Your task to perform on an android device: Turn off the flashlight Image 0: 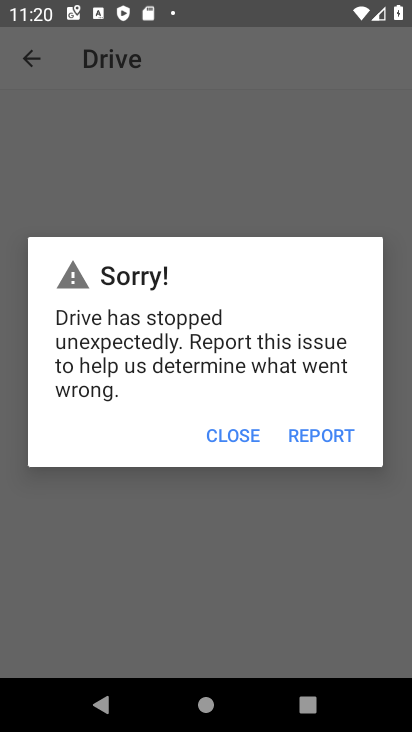
Step 0: press home button
Your task to perform on an android device: Turn off the flashlight Image 1: 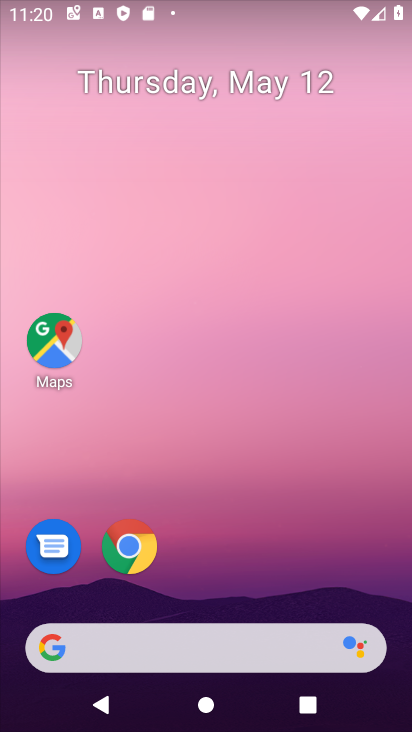
Step 1: drag from (238, 662) to (192, 212)
Your task to perform on an android device: Turn off the flashlight Image 2: 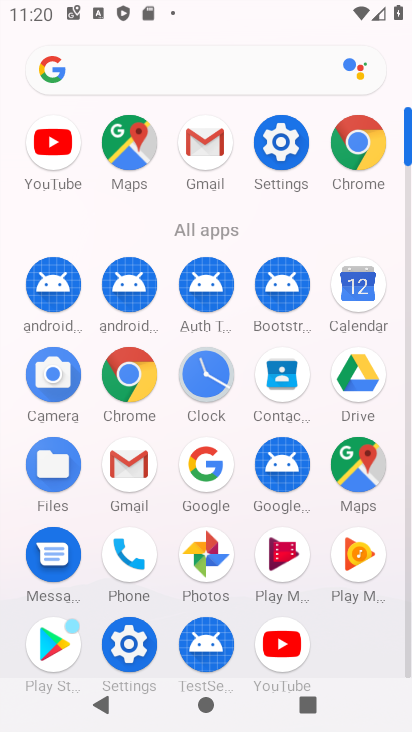
Step 2: click (285, 150)
Your task to perform on an android device: Turn off the flashlight Image 3: 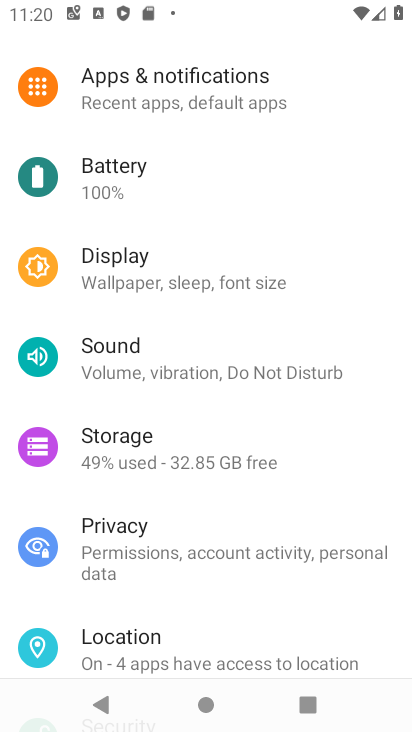
Step 3: drag from (74, 128) to (126, 345)
Your task to perform on an android device: Turn off the flashlight Image 4: 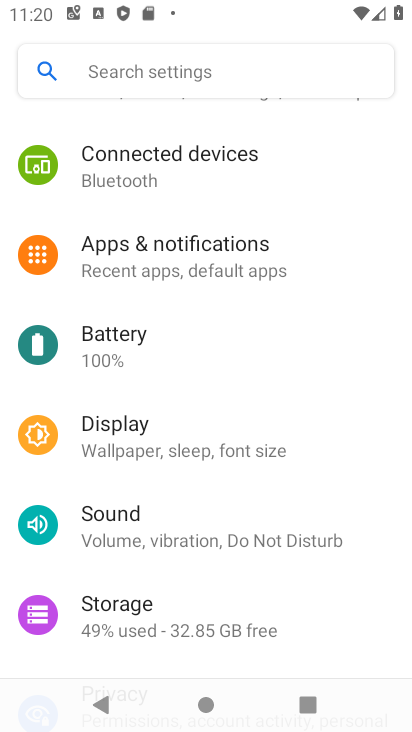
Step 4: click (134, 84)
Your task to perform on an android device: Turn off the flashlight Image 5: 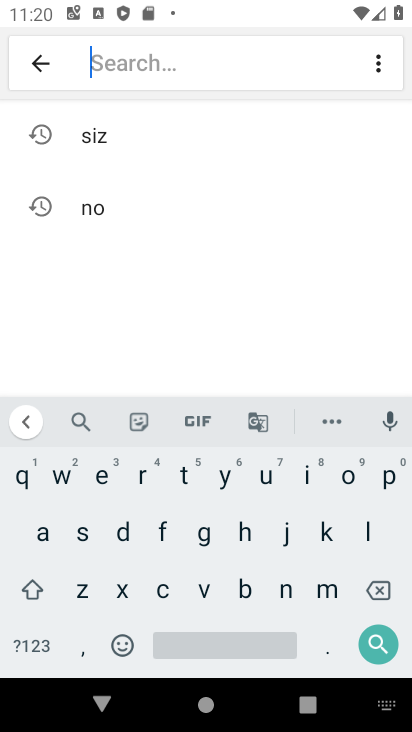
Step 5: click (158, 535)
Your task to perform on an android device: Turn off the flashlight Image 6: 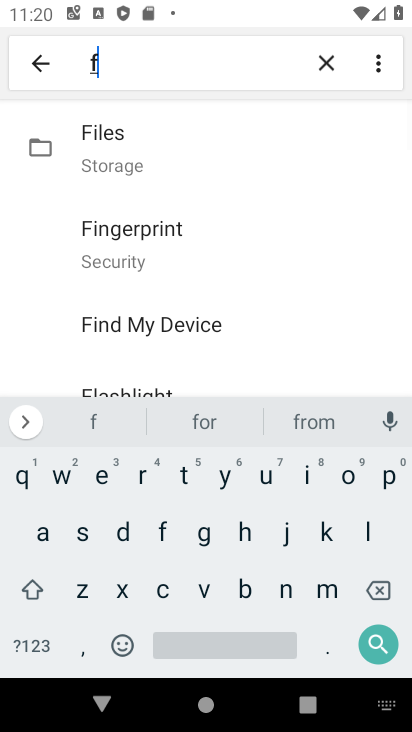
Step 6: click (370, 532)
Your task to perform on an android device: Turn off the flashlight Image 7: 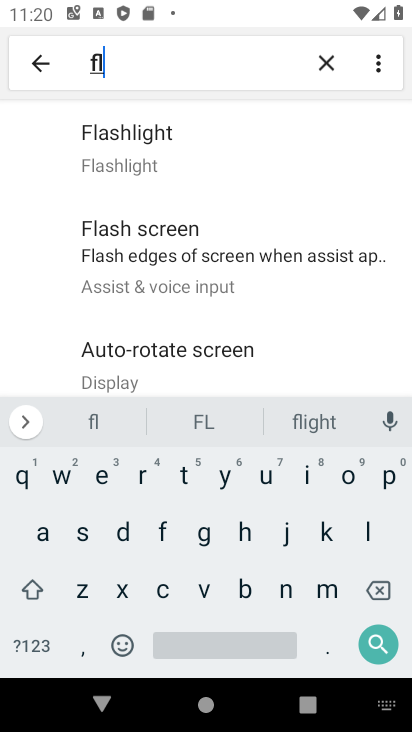
Step 7: click (103, 150)
Your task to perform on an android device: Turn off the flashlight Image 8: 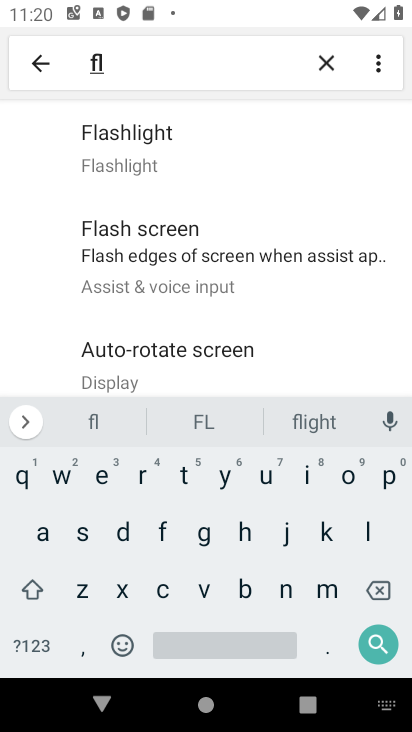
Step 8: task complete